Your task to perform on an android device: turn on bluetooth scan Image 0: 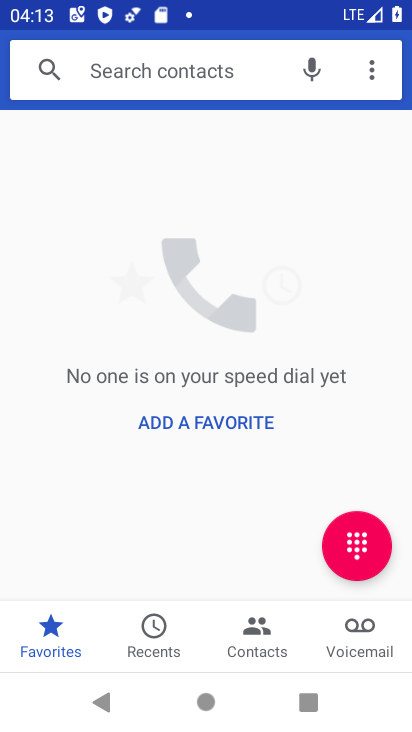
Step 0: press home button
Your task to perform on an android device: turn on bluetooth scan Image 1: 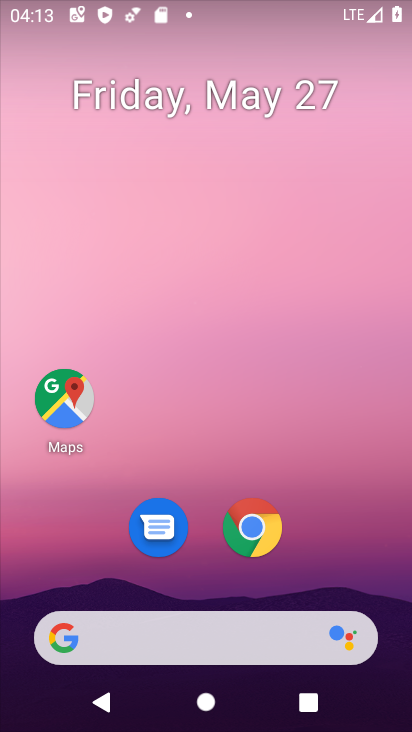
Step 1: drag from (288, 515) to (236, 65)
Your task to perform on an android device: turn on bluetooth scan Image 2: 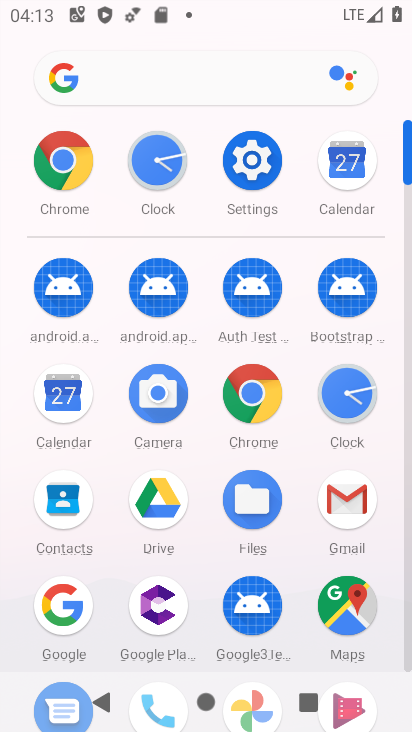
Step 2: click (236, 169)
Your task to perform on an android device: turn on bluetooth scan Image 3: 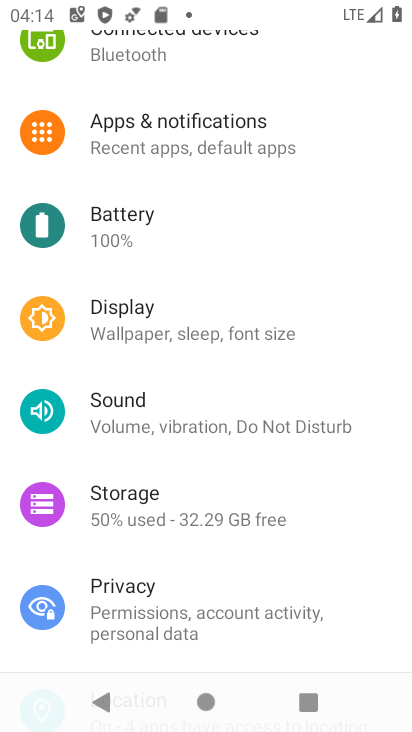
Step 3: drag from (196, 540) to (207, 91)
Your task to perform on an android device: turn on bluetooth scan Image 4: 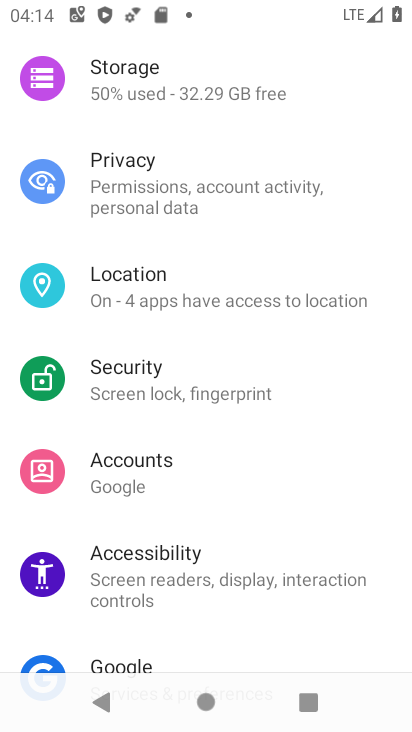
Step 4: drag from (198, 502) to (231, 210)
Your task to perform on an android device: turn on bluetooth scan Image 5: 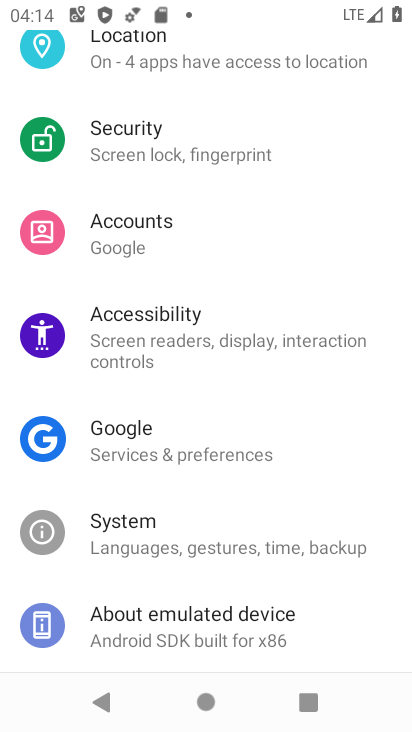
Step 5: click (119, 45)
Your task to perform on an android device: turn on bluetooth scan Image 6: 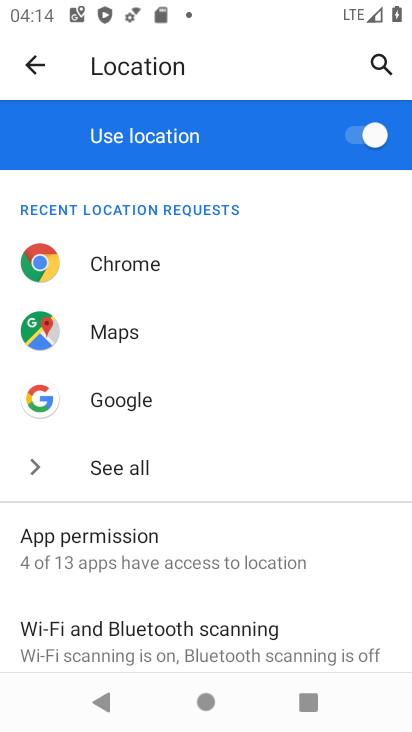
Step 6: drag from (207, 422) to (219, 273)
Your task to perform on an android device: turn on bluetooth scan Image 7: 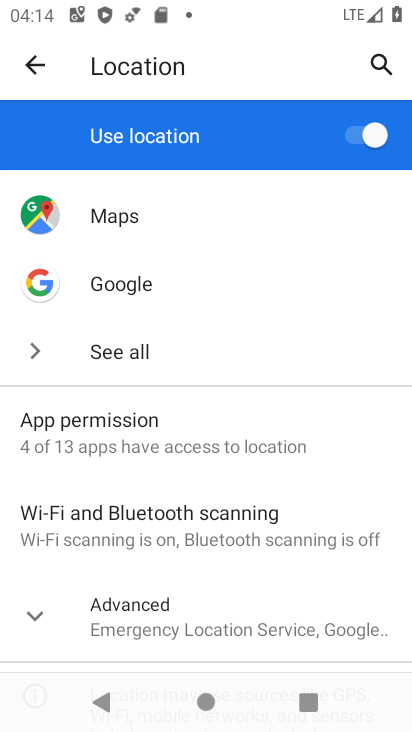
Step 7: click (231, 540)
Your task to perform on an android device: turn on bluetooth scan Image 8: 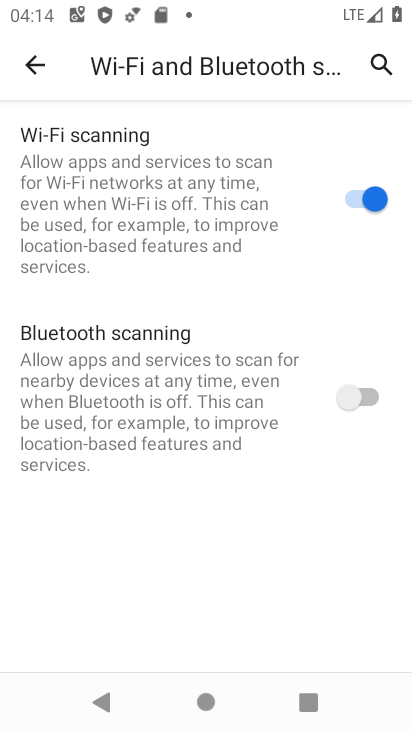
Step 8: click (358, 389)
Your task to perform on an android device: turn on bluetooth scan Image 9: 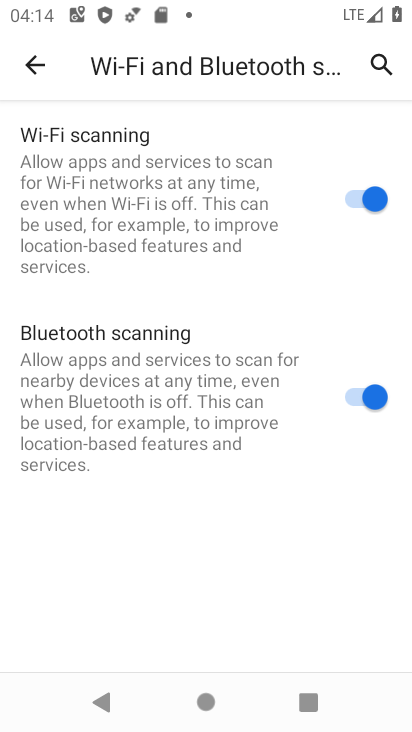
Step 9: task complete